Your task to perform on an android device: refresh tabs in the chrome app Image 0: 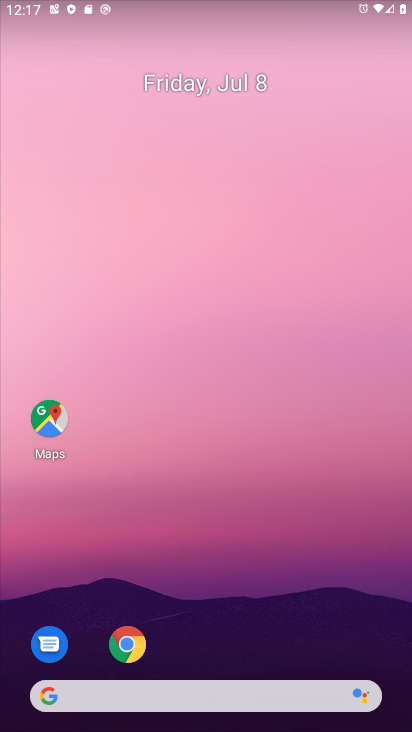
Step 0: click (124, 626)
Your task to perform on an android device: refresh tabs in the chrome app Image 1: 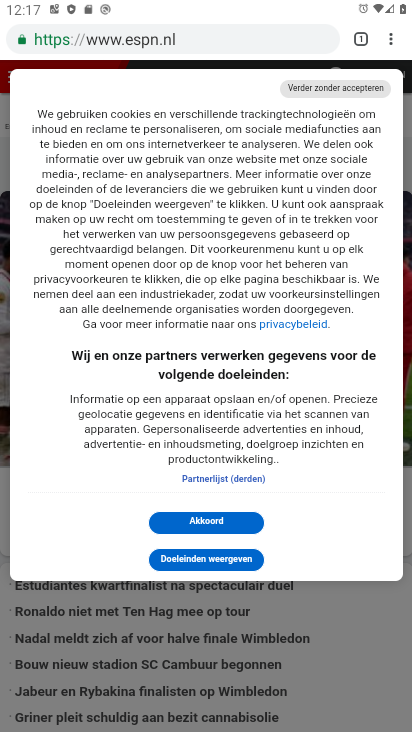
Step 1: click (392, 35)
Your task to perform on an android device: refresh tabs in the chrome app Image 2: 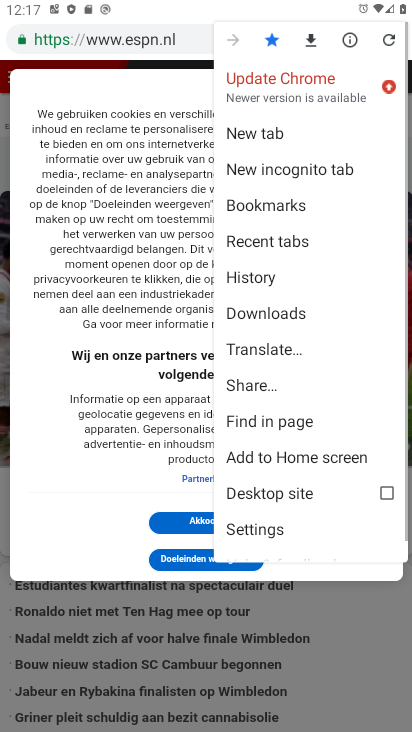
Step 2: click (391, 36)
Your task to perform on an android device: refresh tabs in the chrome app Image 3: 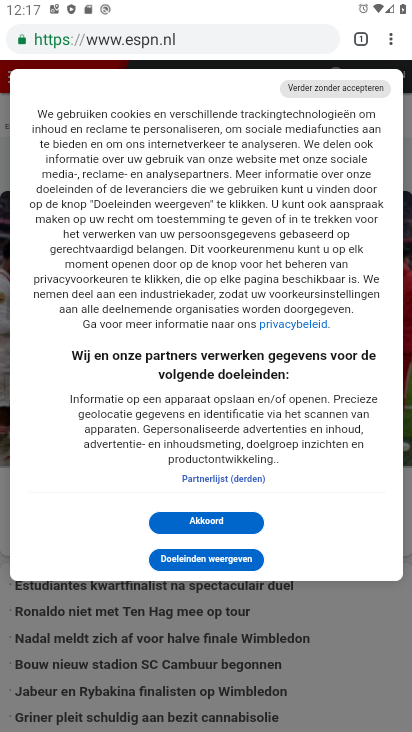
Step 3: task complete